Your task to perform on an android device: show emergency info Image 0: 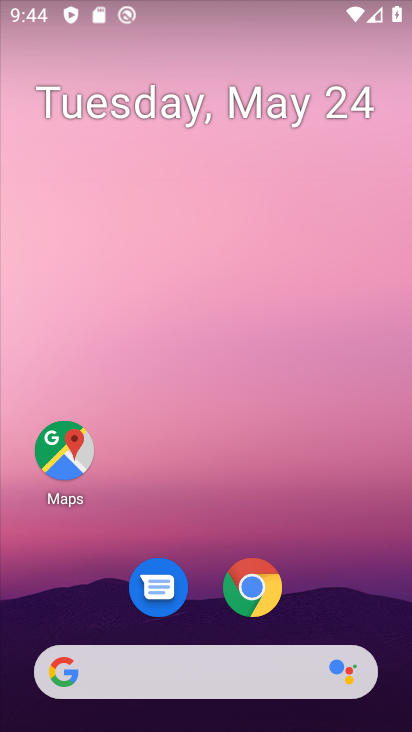
Step 0: press home button
Your task to perform on an android device: show emergency info Image 1: 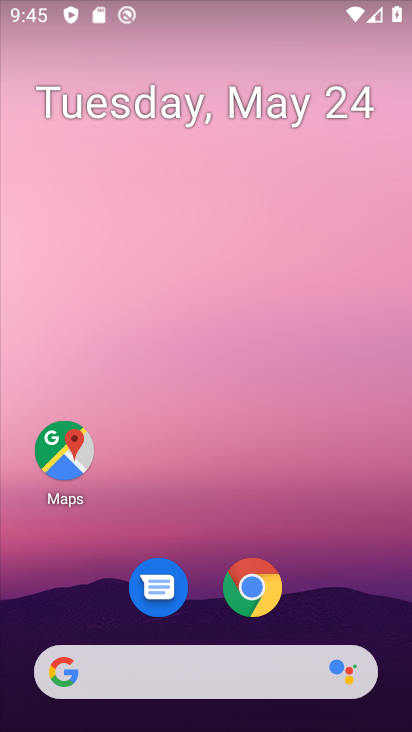
Step 1: drag from (378, 595) to (0, 114)
Your task to perform on an android device: show emergency info Image 2: 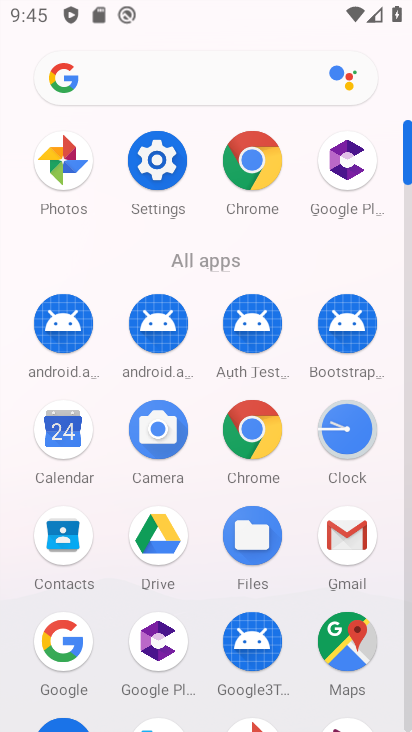
Step 2: click (163, 140)
Your task to perform on an android device: show emergency info Image 3: 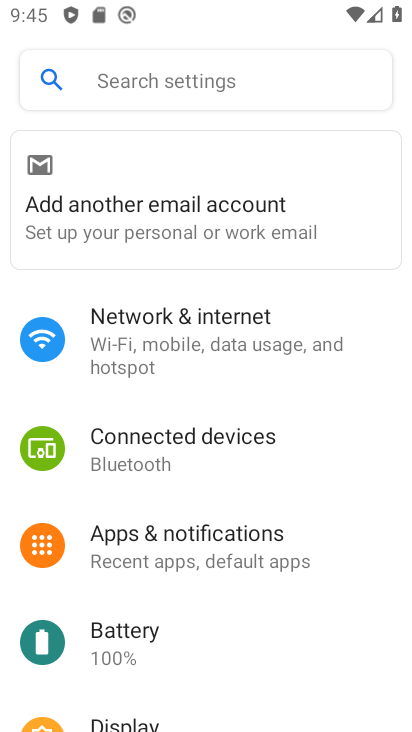
Step 3: drag from (162, 701) to (155, 150)
Your task to perform on an android device: show emergency info Image 4: 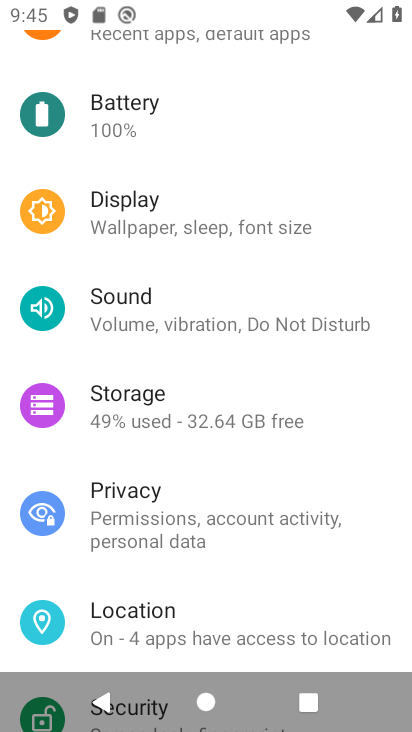
Step 4: drag from (160, 609) to (170, 257)
Your task to perform on an android device: show emergency info Image 5: 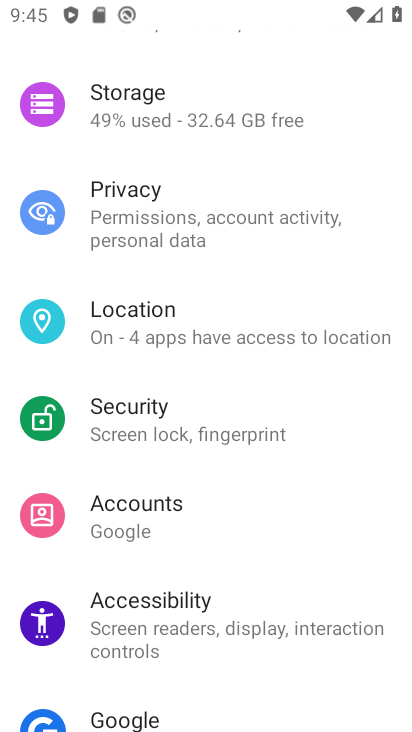
Step 5: drag from (160, 565) to (128, 359)
Your task to perform on an android device: show emergency info Image 6: 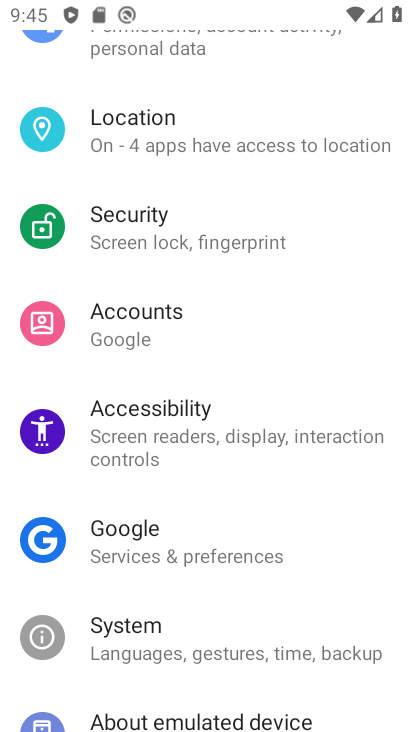
Step 6: drag from (141, 572) to (141, 280)
Your task to perform on an android device: show emergency info Image 7: 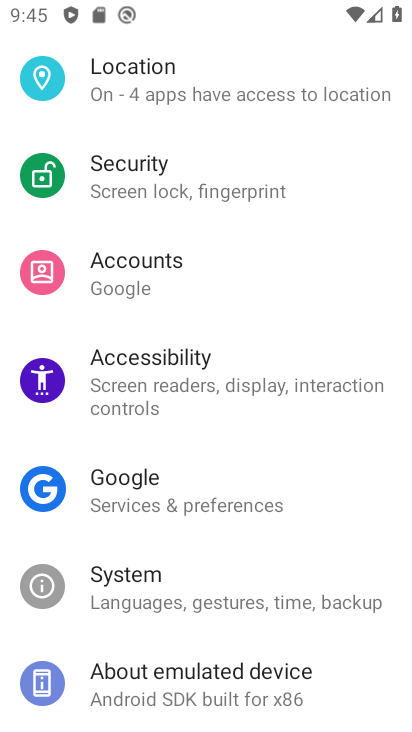
Step 7: click (113, 684)
Your task to perform on an android device: show emergency info Image 8: 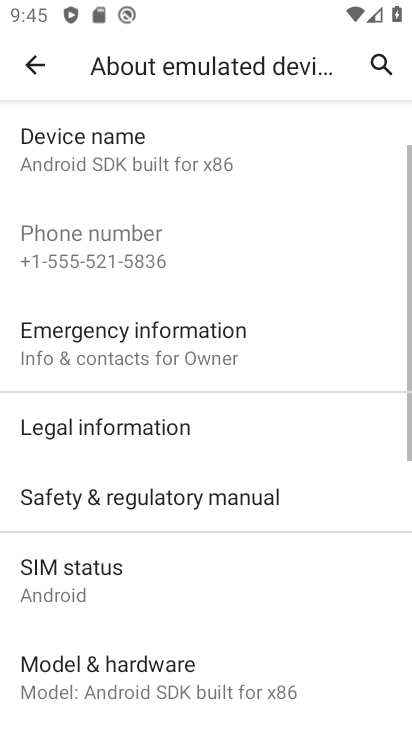
Step 8: click (187, 339)
Your task to perform on an android device: show emergency info Image 9: 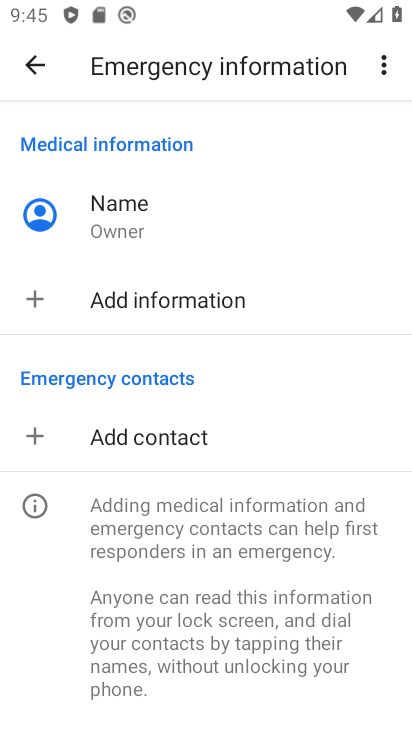
Step 9: task complete